Your task to perform on an android device: search for starred emails in the gmail app Image 0: 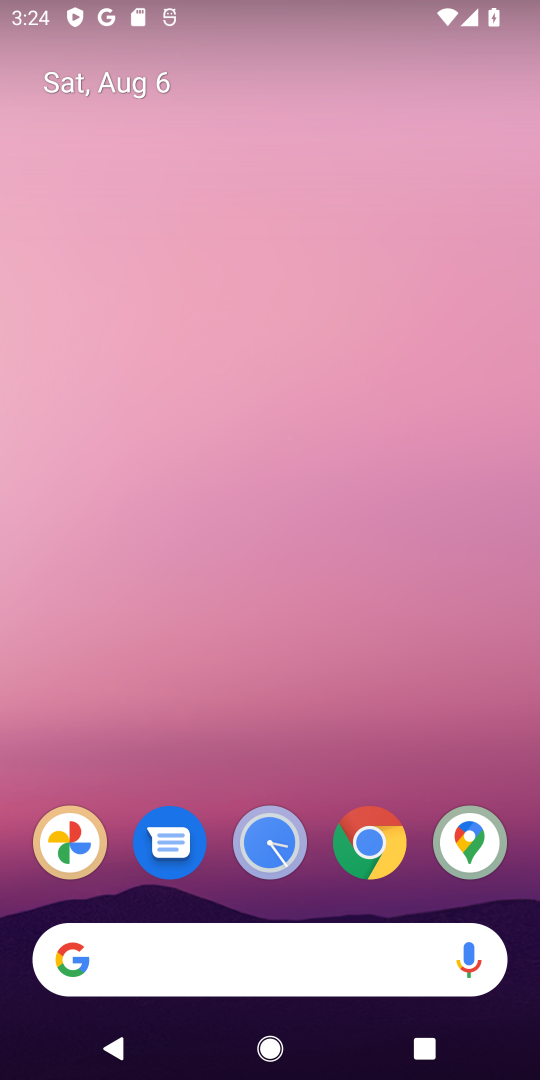
Step 0: drag from (521, 765) to (408, 246)
Your task to perform on an android device: search for starred emails in the gmail app Image 1: 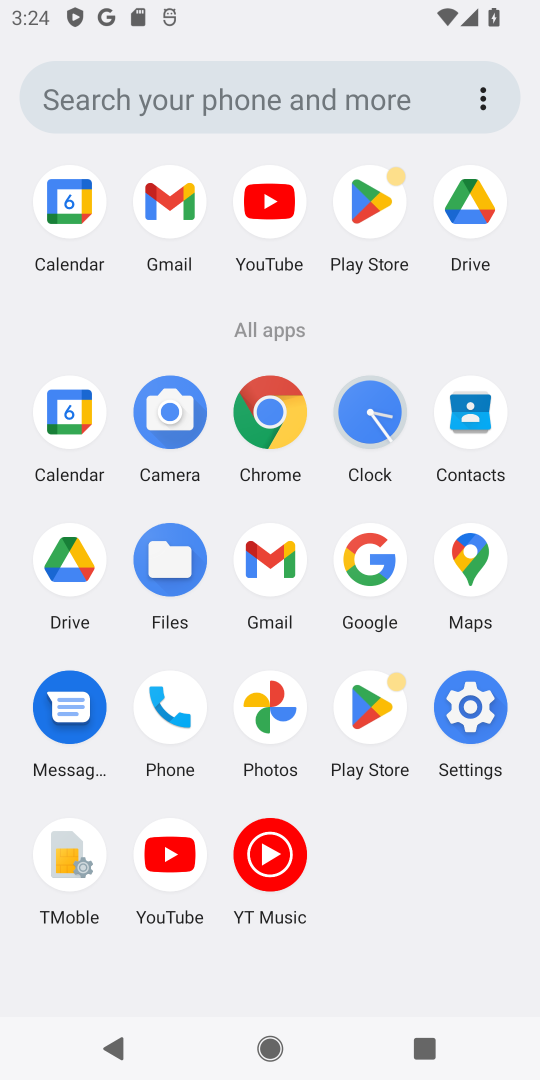
Step 1: click (278, 563)
Your task to perform on an android device: search for starred emails in the gmail app Image 2: 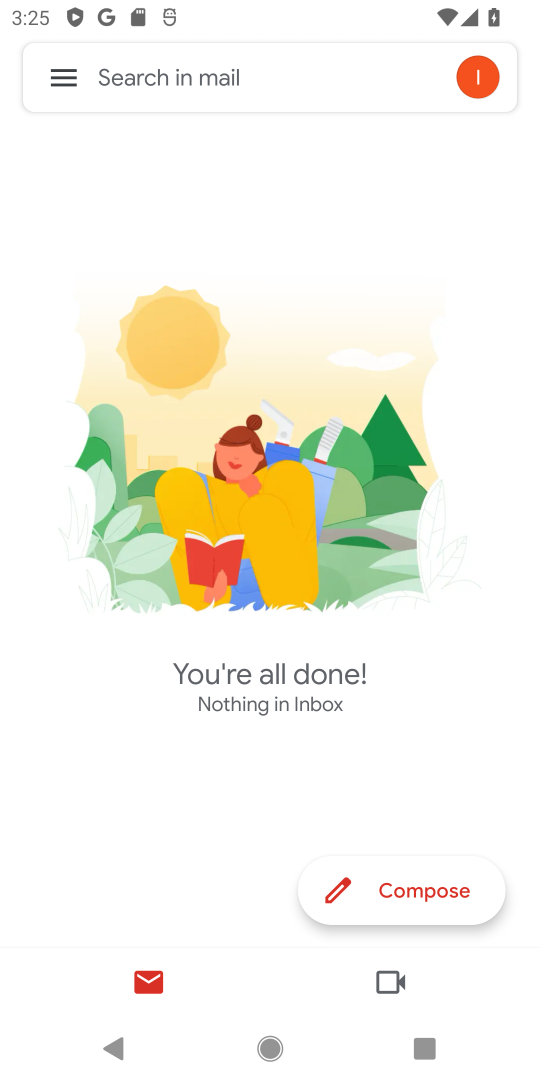
Step 2: click (55, 68)
Your task to perform on an android device: search for starred emails in the gmail app Image 3: 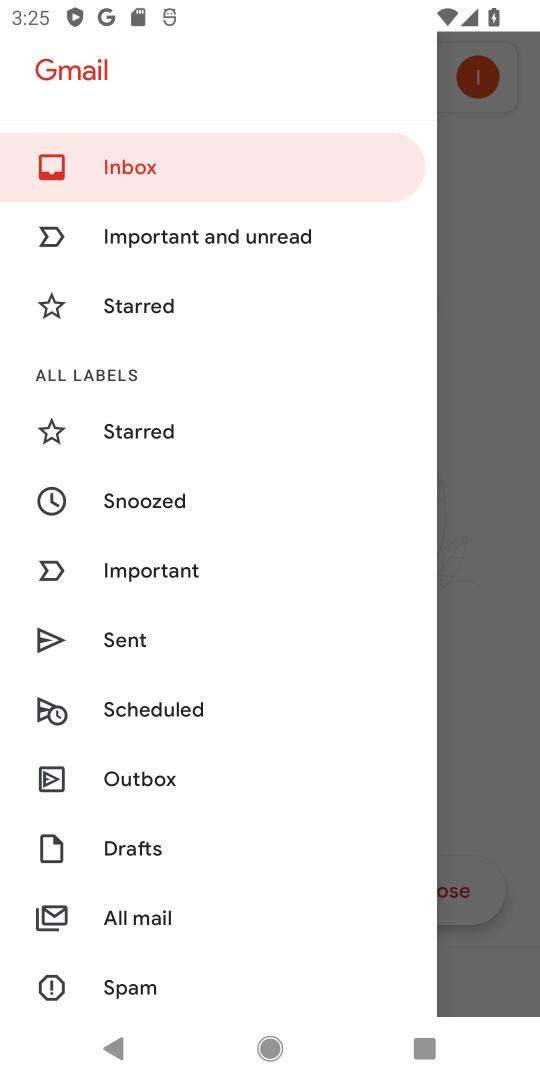
Step 3: click (129, 305)
Your task to perform on an android device: search for starred emails in the gmail app Image 4: 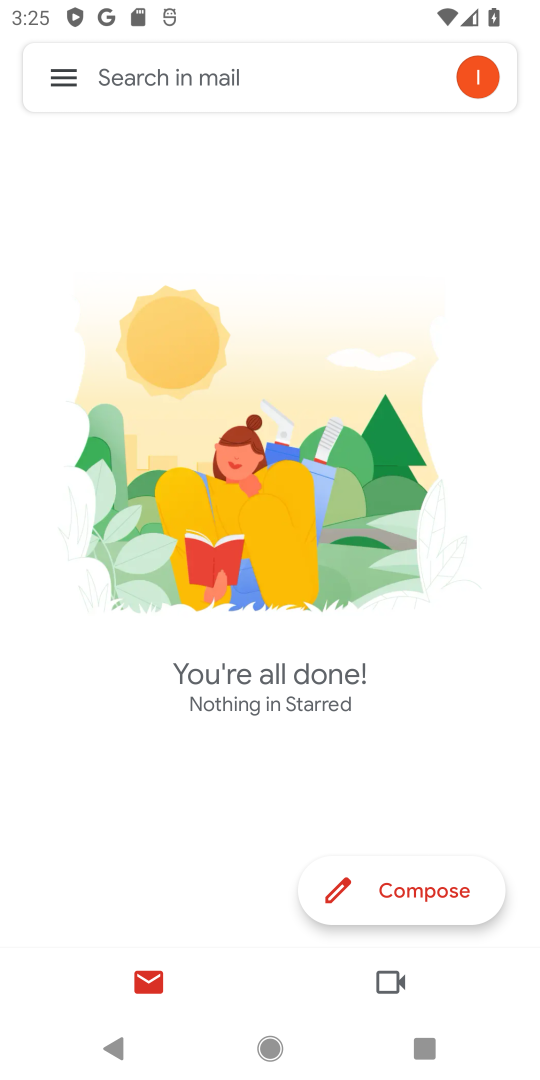
Step 4: click (47, 71)
Your task to perform on an android device: search for starred emails in the gmail app Image 5: 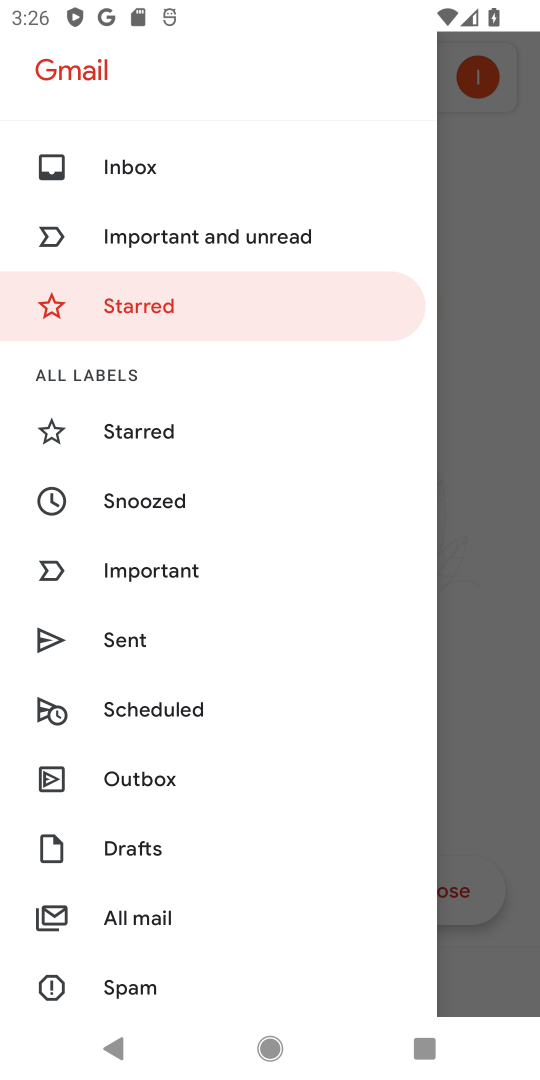
Step 5: task complete